Your task to perform on an android device: delete browsing data in the chrome app Image 0: 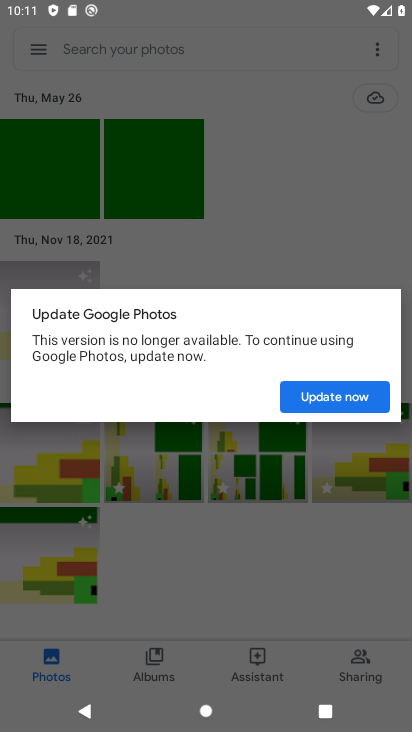
Step 0: press home button
Your task to perform on an android device: delete browsing data in the chrome app Image 1: 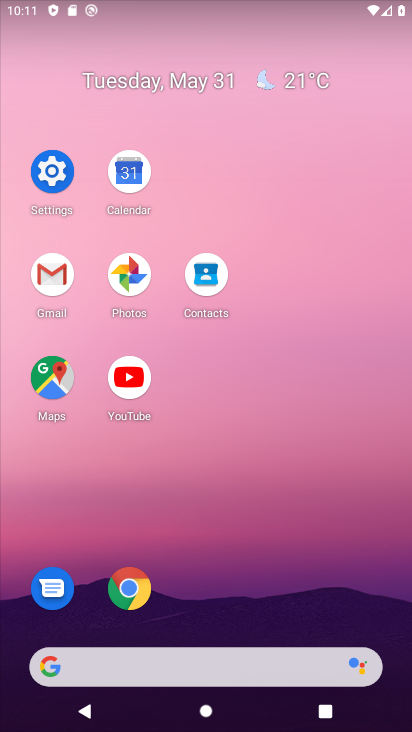
Step 1: click (130, 608)
Your task to perform on an android device: delete browsing data in the chrome app Image 2: 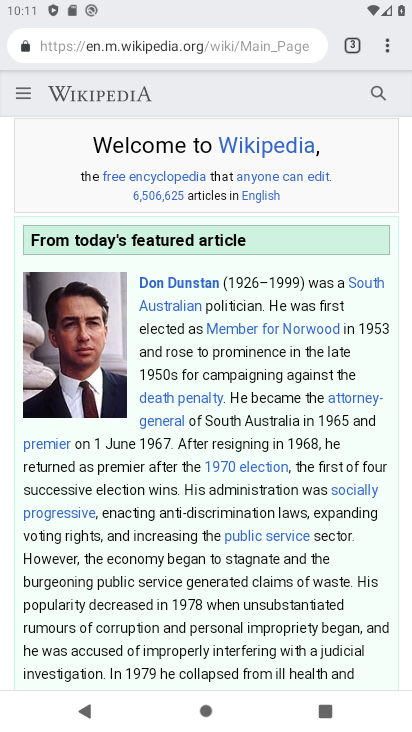
Step 2: click (389, 39)
Your task to perform on an android device: delete browsing data in the chrome app Image 3: 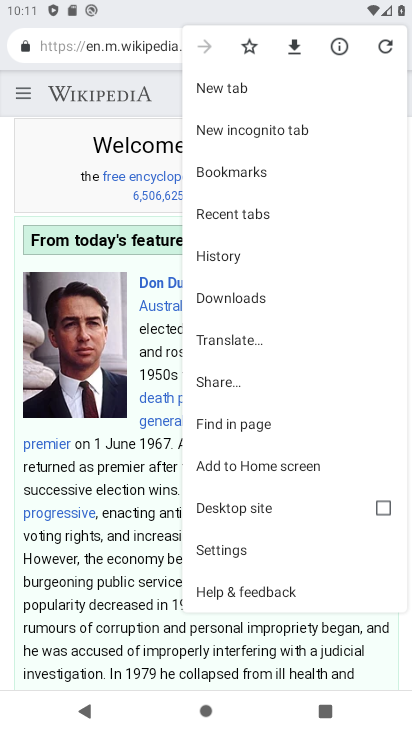
Step 3: click (227, 542)
Your task to perform on an android device: delete browsing data in the chrome app Image 4: 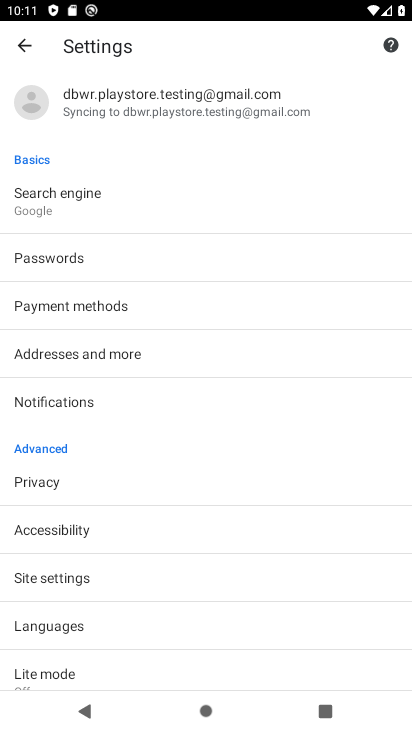
Step 4: drag from (118, 653) to (150, 234)
Your task to perform on an android device: delete browsing data in the chrome app Image 5: 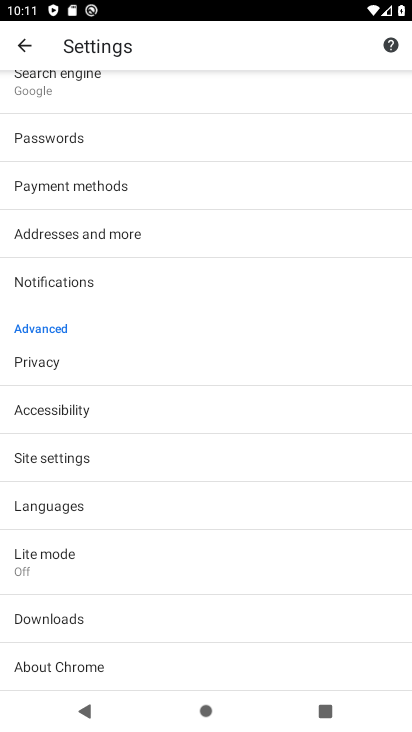
Step 5: click (110, 386)
Your task to perform on an android device: delete browsing data in the chrome app Image 6: 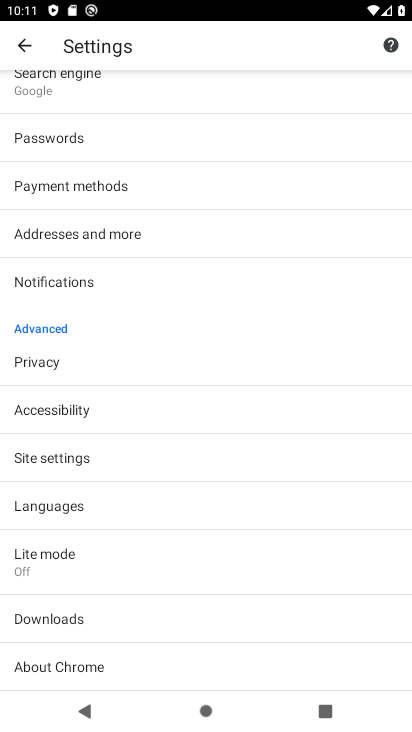
Step 6: click (109, 368)
Your task to perform on an android device: delete browsing data in the chrome app Image 7: 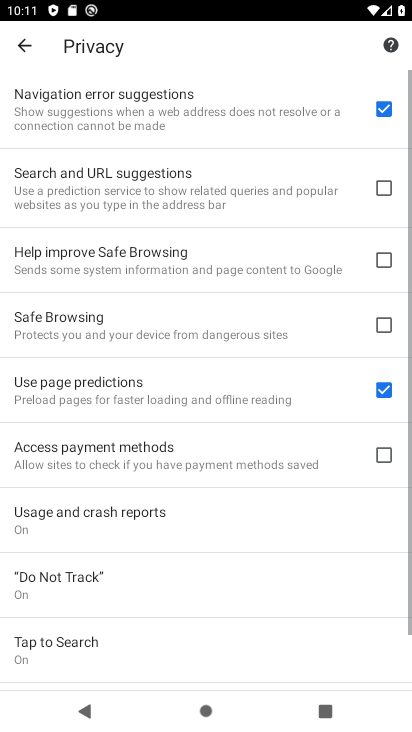
Step 7: drag from (195, 569) to (164, 186)
Your task to perform on an android device: delete browsing data in the chrome app Image 8: 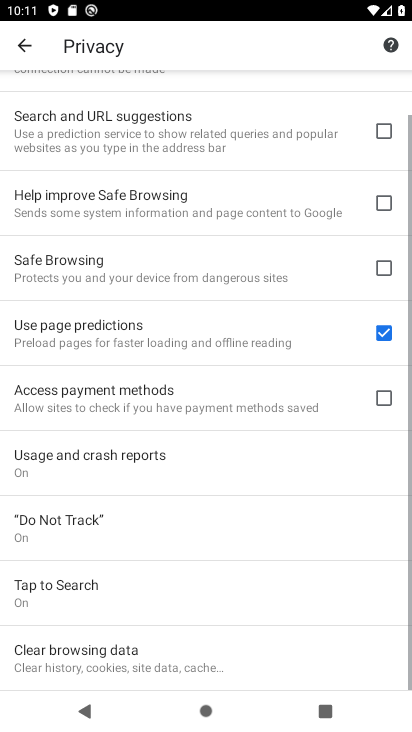
Step 8: click (111, 666)
Your task to perform on an android device: delete browsing data in the chrome app Image 9: 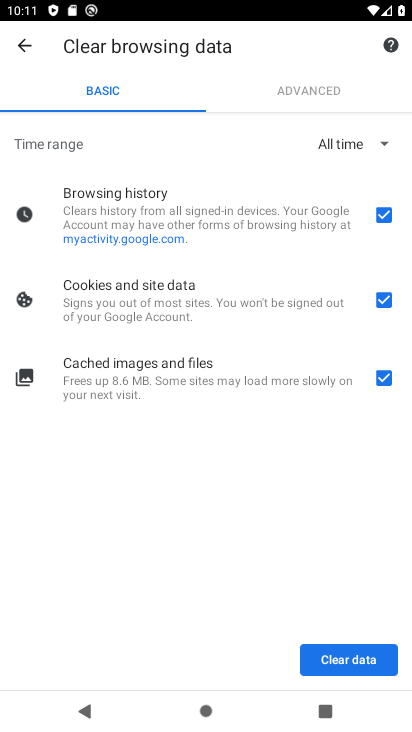
Step 9: click (347, 659)
Your task to perform on an android device: delete browsing data in the chrome app Image 10: 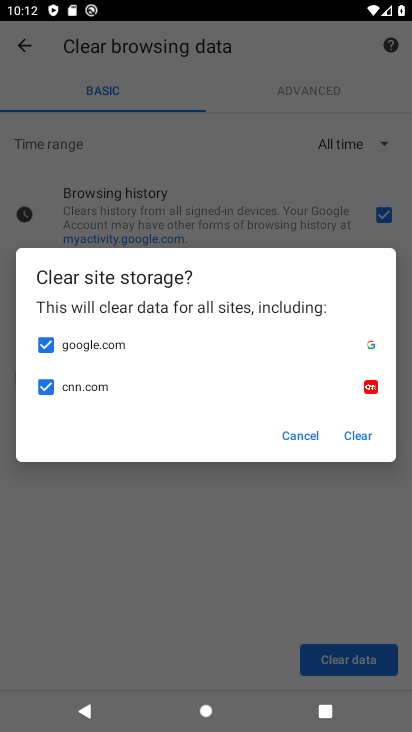
Step 10: click (359, 435)
Your task to perform on an android device: delete browsing data in the chrome app Image 11: 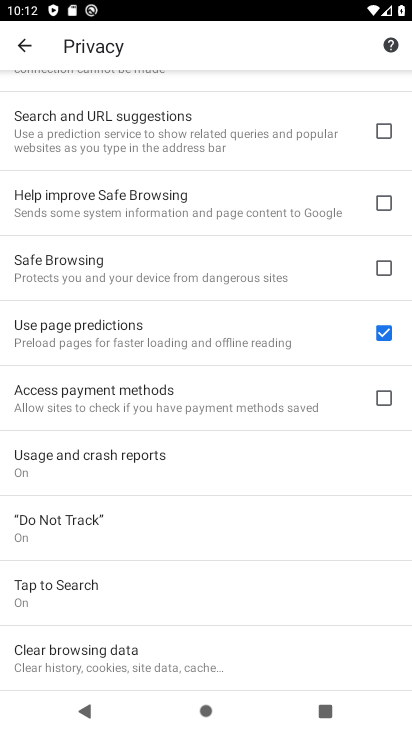
Step 11: task complete